Your task to perform on an android device: Search for flights from Helsinki to Seoul Image 0: 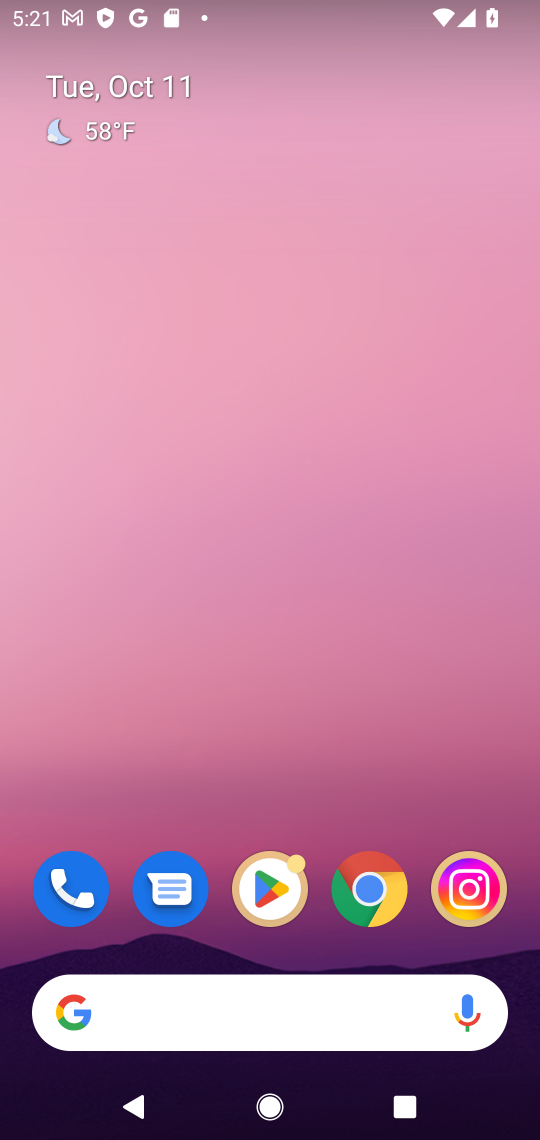
Step 0: drag from (239, 991) to (223, 225)
Your task to perform on an android device: Search for flights from Helsinki to Seoul Image 1: 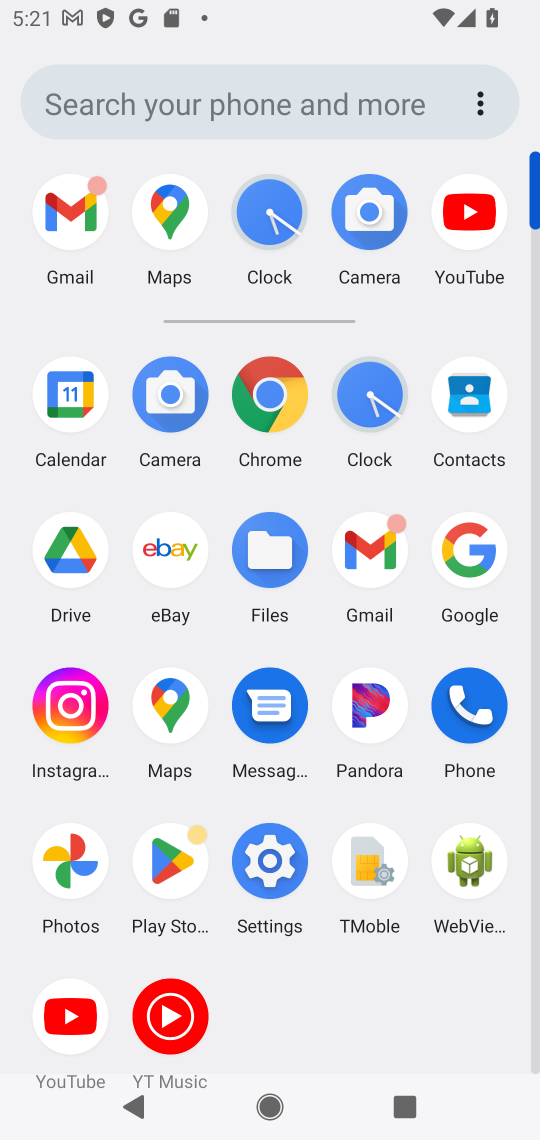
Step 1: click (460, 543)
Your task to perform on an android device: Search for flights from Helsinki to Seoul Image 2: 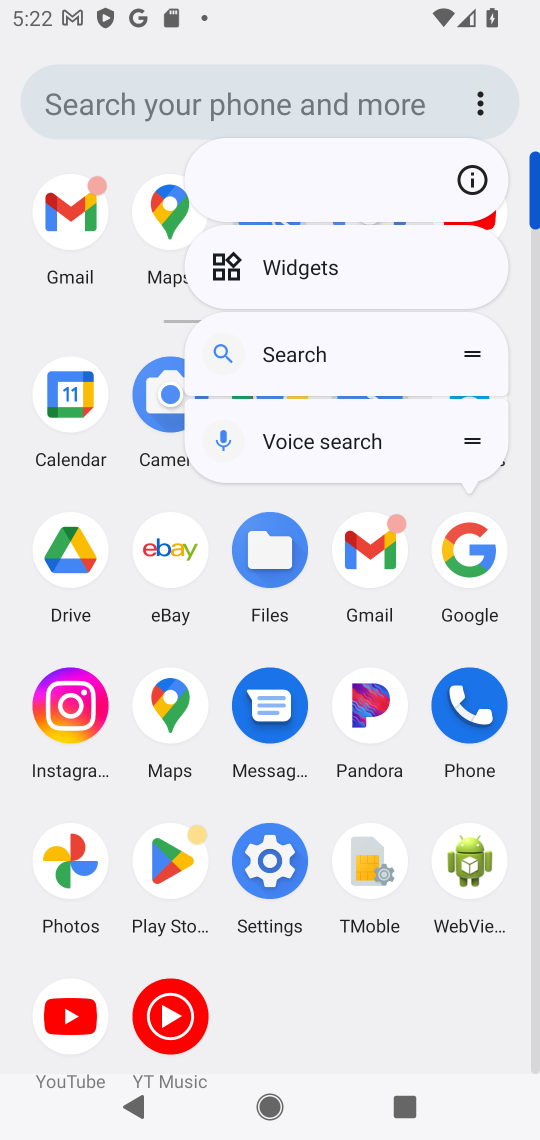
Step 2: click (469, 539)
Your task to perform on an android device: Search for flights from Helsinki to Seoul Image 3: 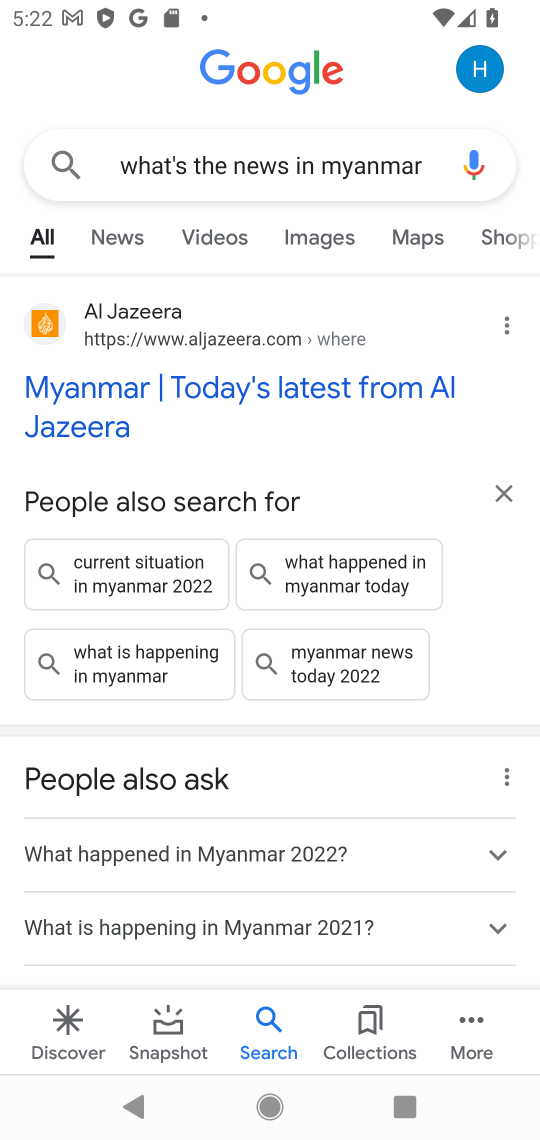
Step 3: click (222, 160)
Your task to perform on an android device: Search for flights from Helsinki to Seoul Image 4: 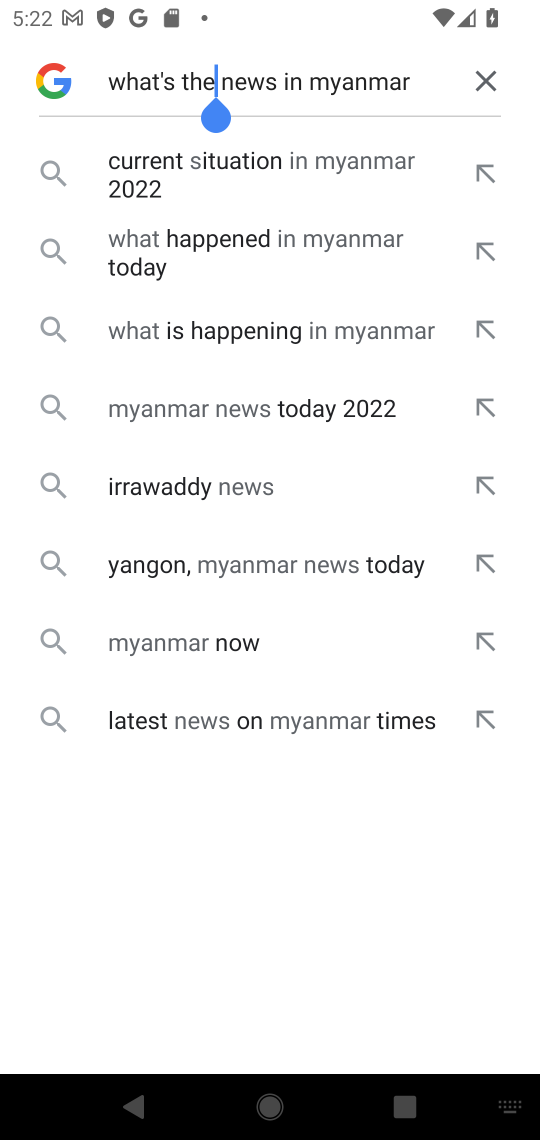
Step 4: click (475, 80)
Your task to perform on an android device: Search for flights from Helsinki to Seoul Image 5: 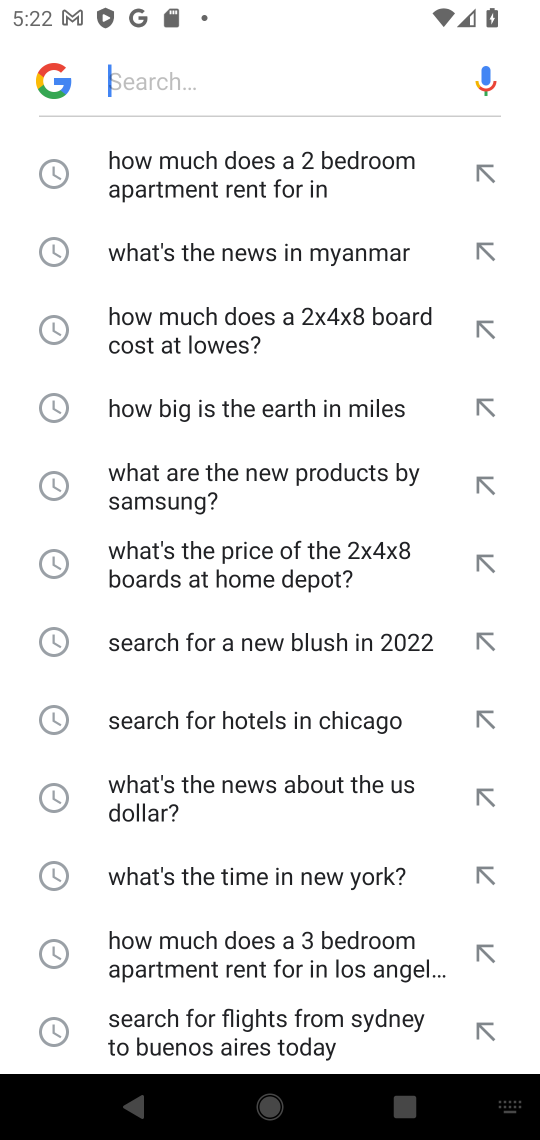
Step 5: click (281, 85)
Your task to perform on an android device: Search for flights from Helsinki to Seoul Image 6: 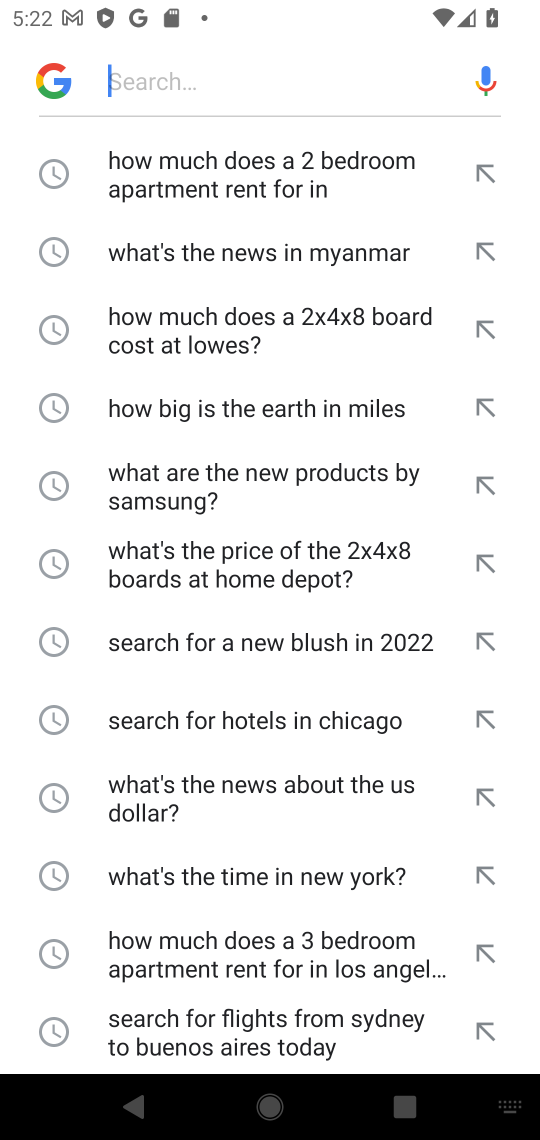
Step 6: type "Search for flights from Helsinki to Seoul "
Your task to perform on an android device: Search for flights from Helsinki to Seoul Image 7: 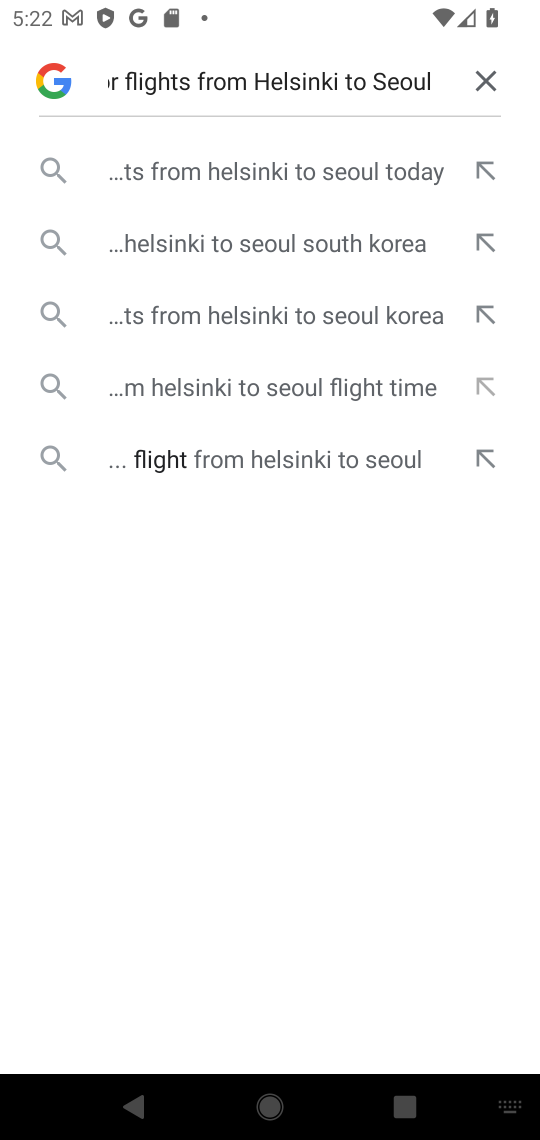
Step 7: click (221, 170)
Your task to perform on an android device: Search for flights from Helsinki to Seoul Image 8: 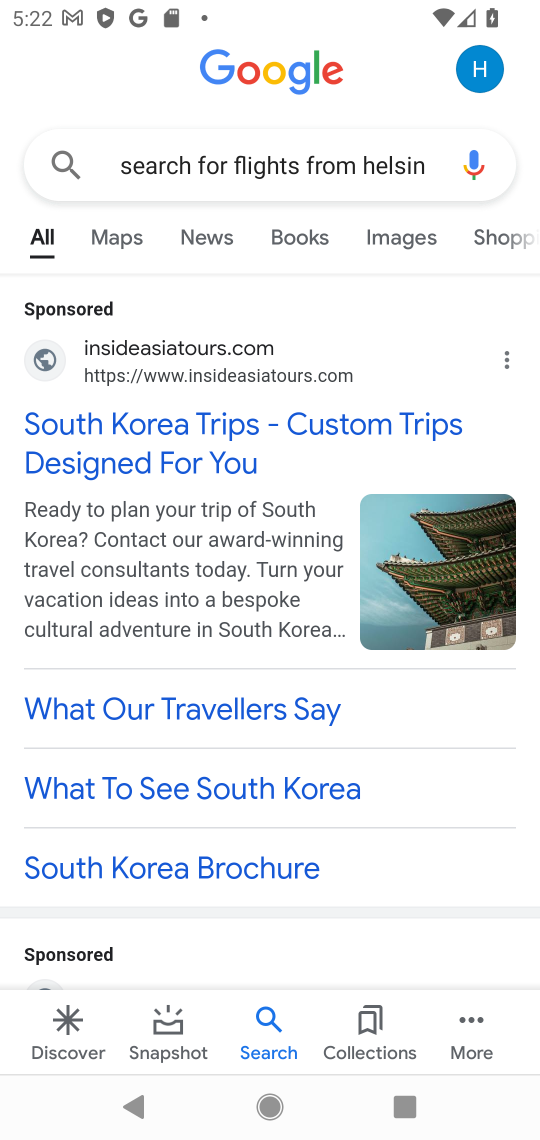
Step 8: click (226, 431)
Your task to perform on an android device: Search for flights from Helsinki to Seoul Image 9: 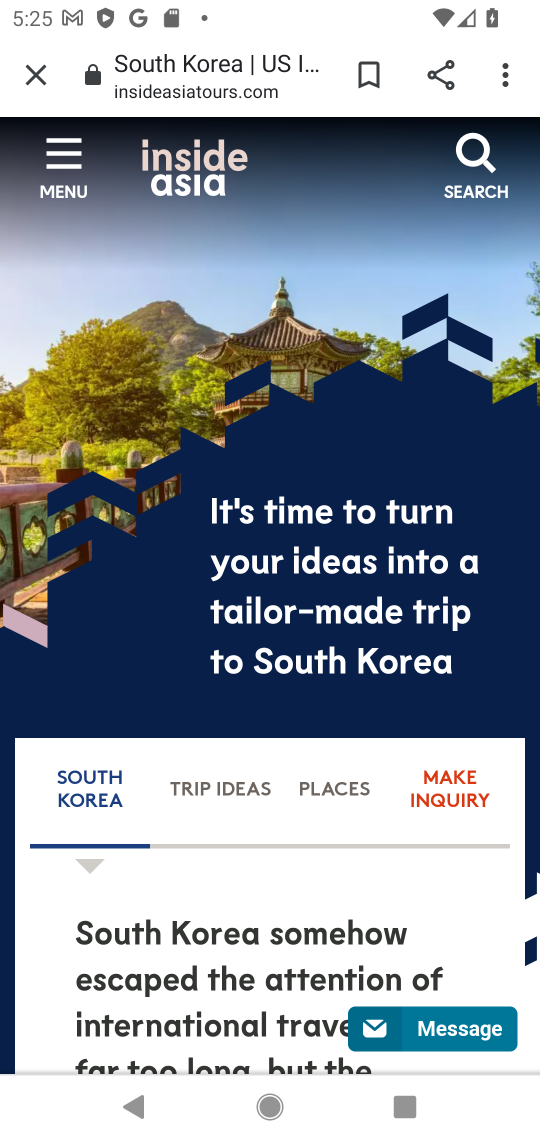
Step 9: task complete